Your task to perform on an android device: Go to network settings Image 0: 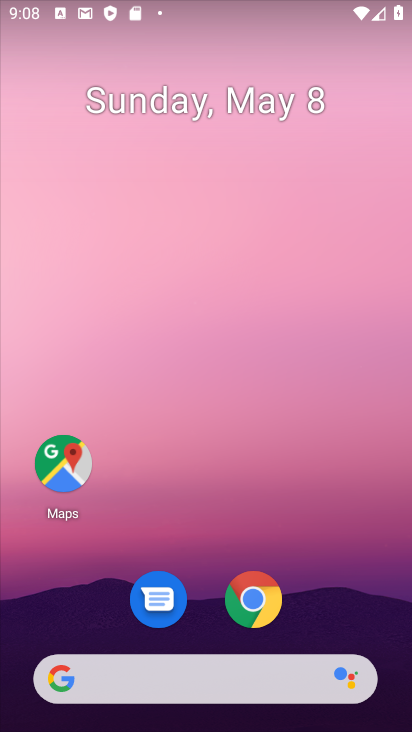
Step 0: drag from (129, 653) to (242, 34)
Your task to perform on an android device: Go to network settings Image 1: 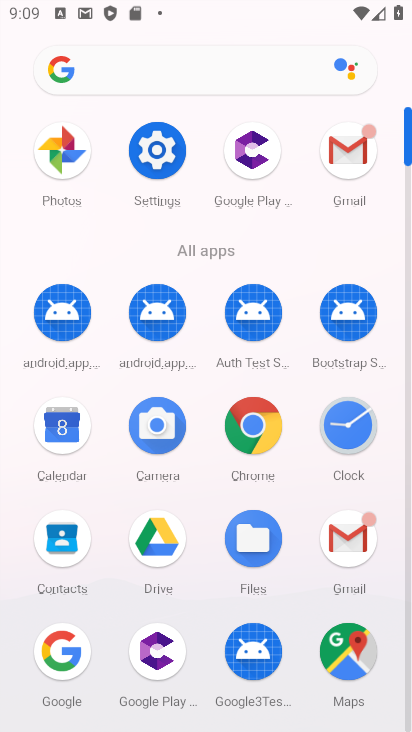
Step 1: click (165, 145)
Your task to perform on an android device: Go to network settings Image 2: 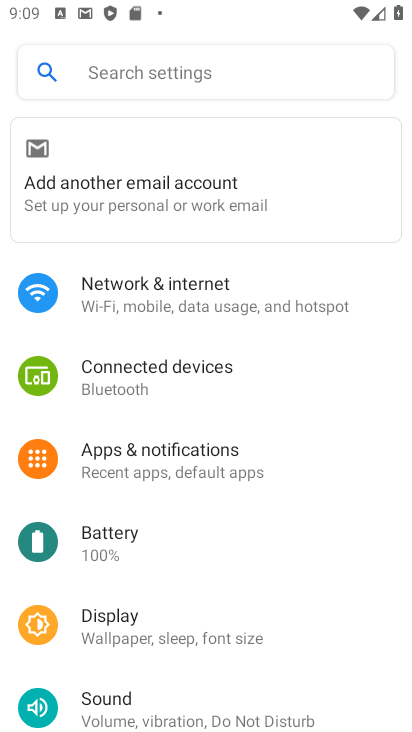
Step 2: click (176, 294)
Your task to perform on an android device: Go to network settings Image 3: 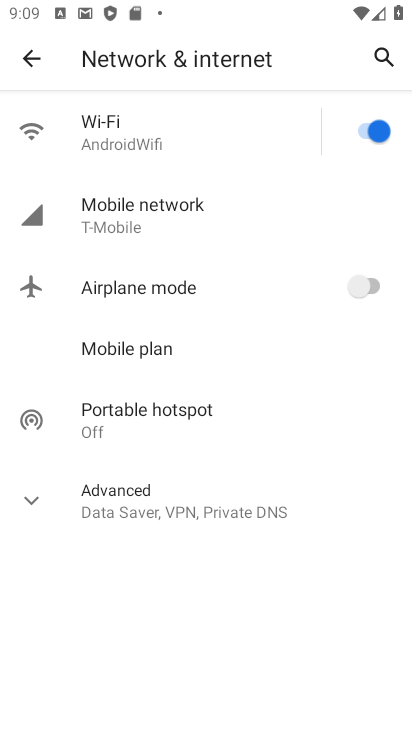
Step 3: click (228, 210)
Your task to perform on an android device: Go to network settings Image 4: 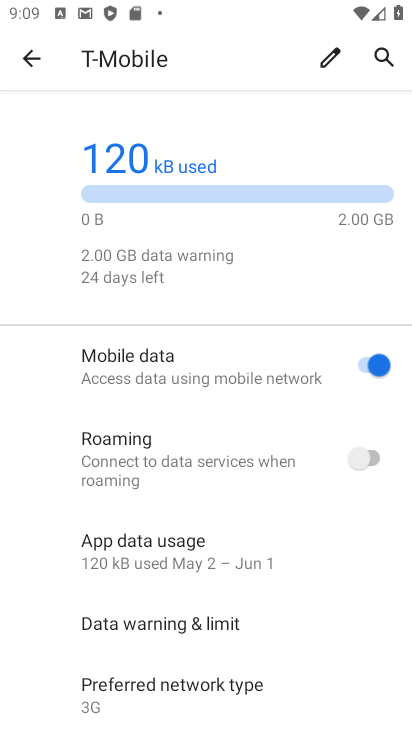
Step 4: task complete